Your task to perform on an android device: move a message to another label in the gmail app Image 0: 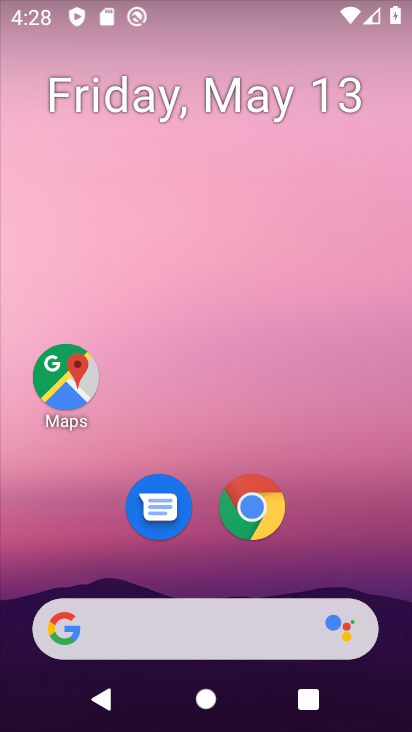
Step 0: drag from (335, 554) to (216, 76)
Your task to perform on an android device: move a message to another label in the gmail app Image 1: 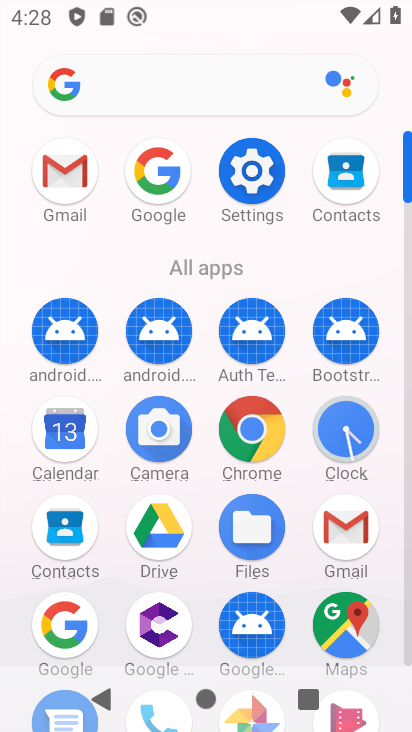
Step 1: click (43, 166)
Your task to perform on an android device: move a message to another label in the gmail app Image 2: 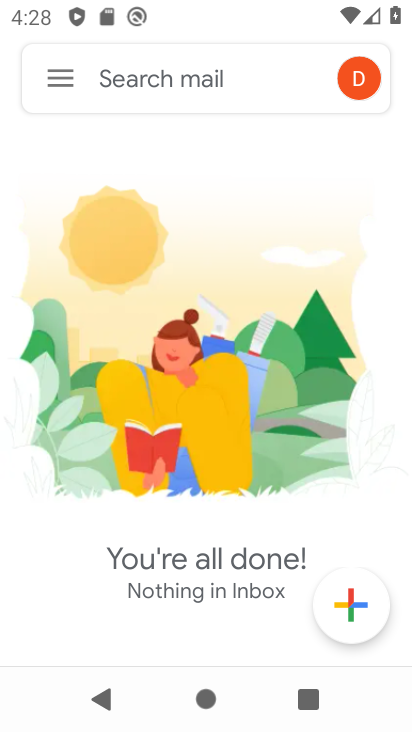
Step 2: click (62, 80)
Your task to perform on an android device: move a message to another label in the gmail app Image 3: 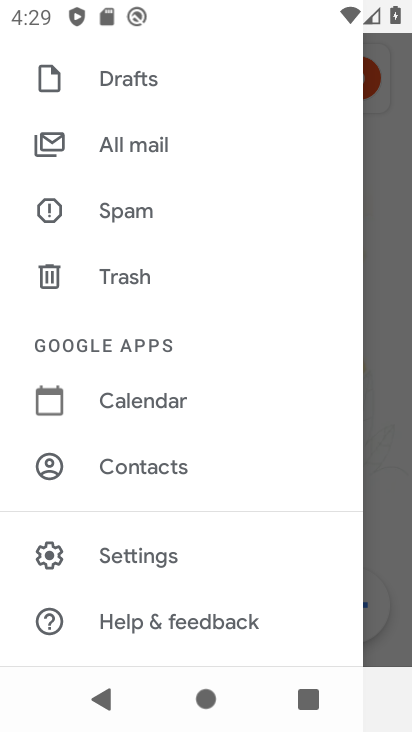
Step 3: click (145, 156)
Your task to perform on an android device: move a message to another label in the gmail app Image 4: 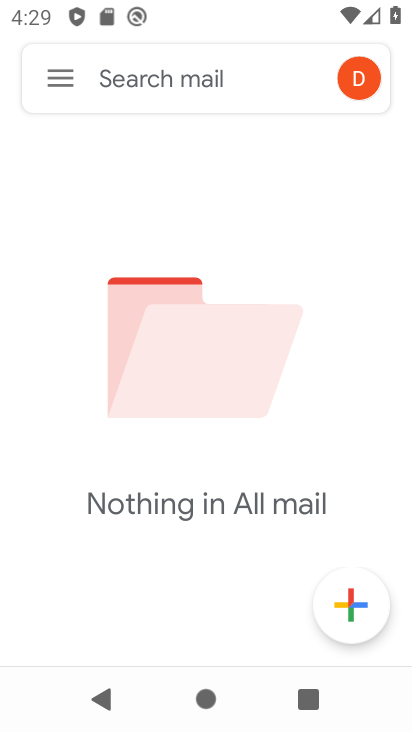
Step 4: task complete